Your task to perform on an android device: open wifi settings Image 0: 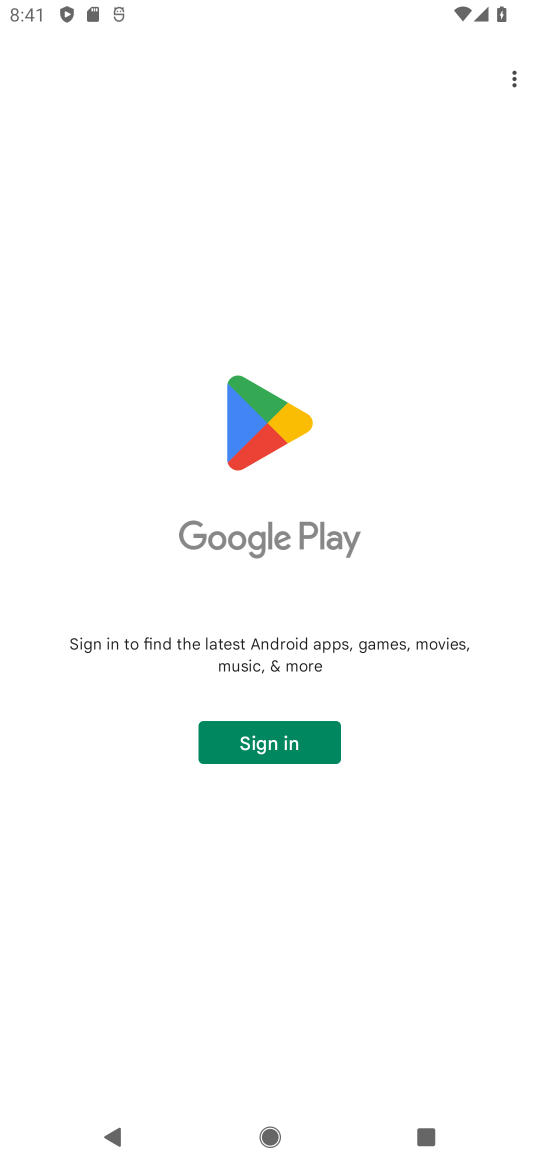
Step 0: press back button
Your task to perform on an android device: open wifi settings Image 1: 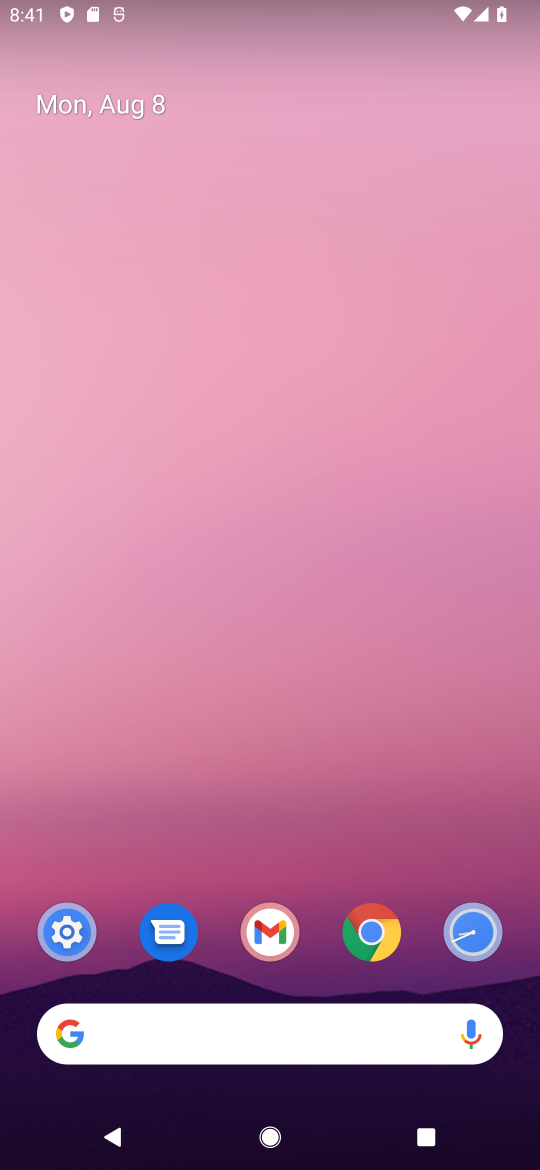
Step 1: drag from (145, 4) to (236, 822)
Your task to perform on an android device: open wifi settings Image 2: 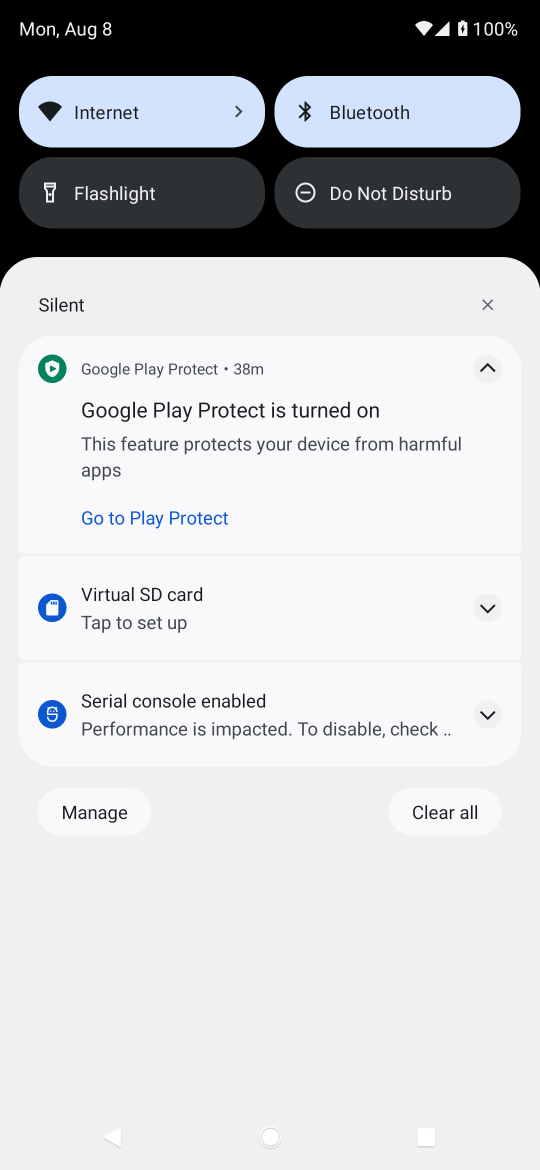
Step 2: click (120, 112)
Your task to perform on an android device: open wifi settings Image 3: 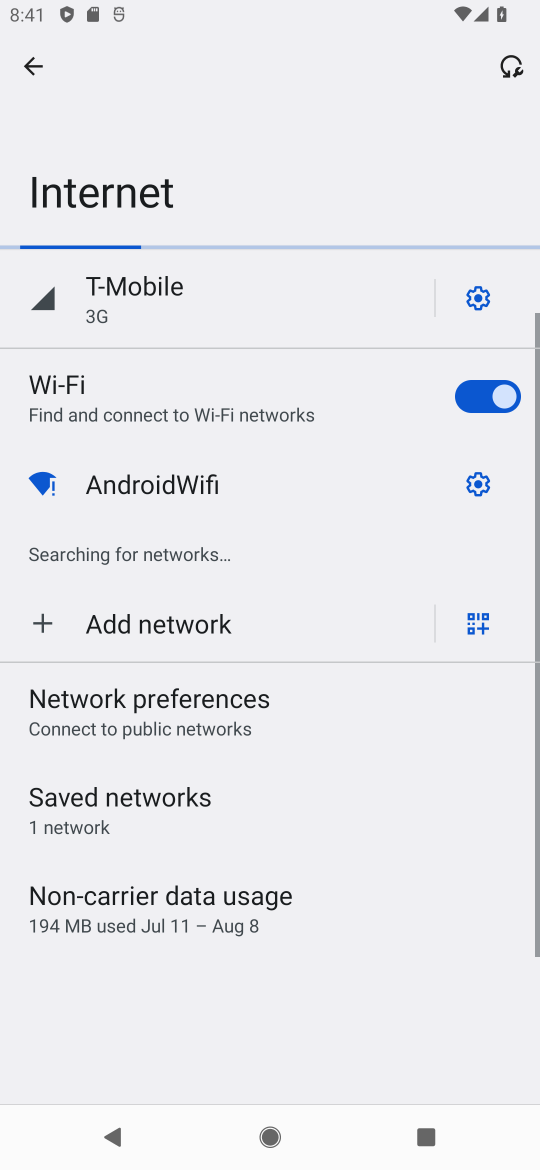
Step 3: task complete